Your task to perform on an android device: Open the web browser Image 0: 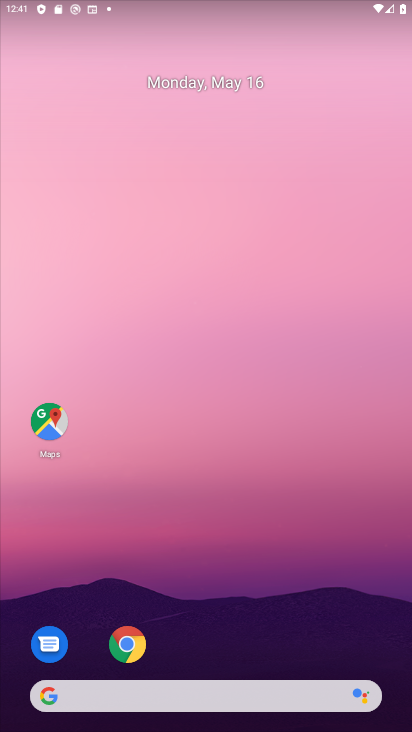
Step 0: click (127, 646)
Your task to perform on an android device: Open the web browser Image 1: 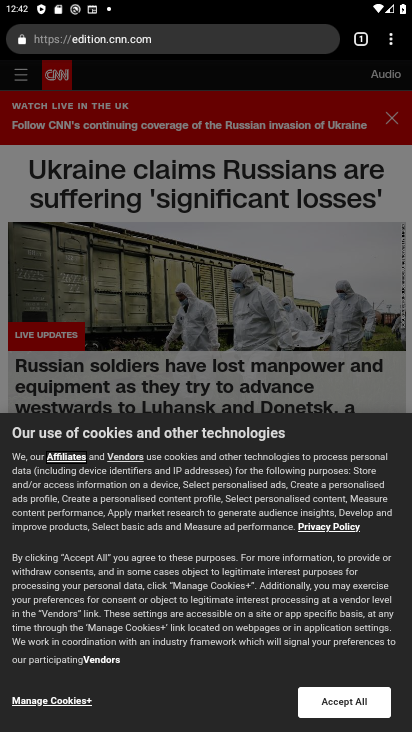
Step 1: task complete